Your task to perform on an android device: Open Google Image 0: 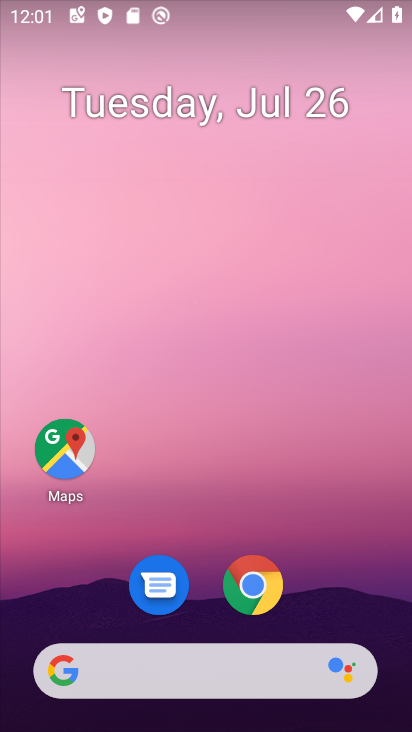
Step 0: click (193, 660)
Your task to perform on an android device: Open Google Image 1: 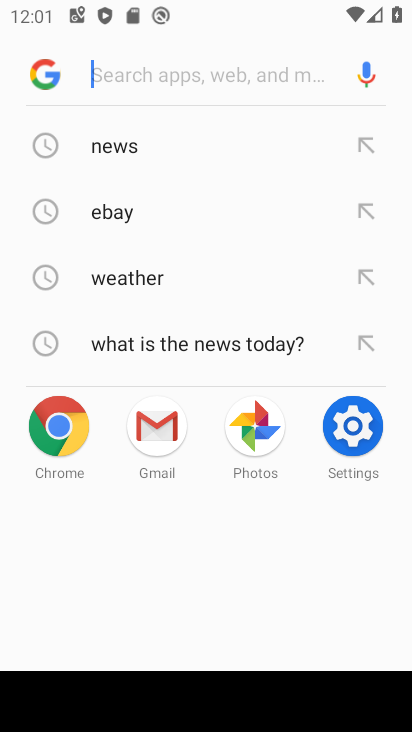
Step 1: click (50, 79)
Your task to perform on an android device: Open Google Image 2: 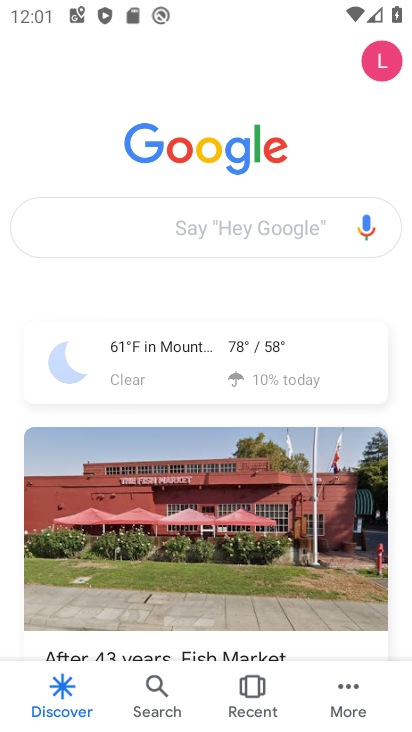
Step 2: task complete